Your task to perform on an android device: create a new album in the google photos Image 0: 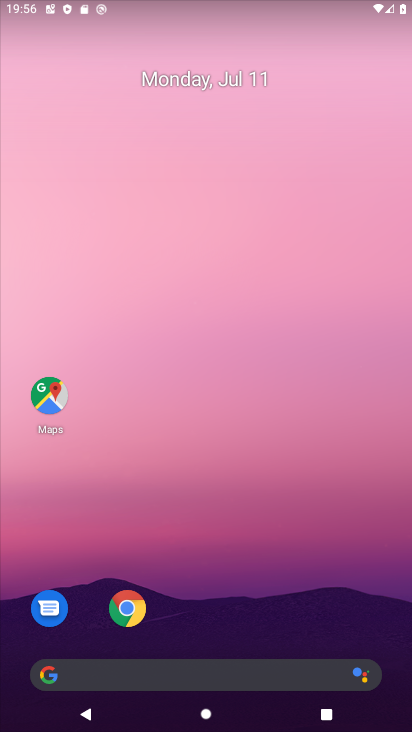
Step 0: drag from (214, 646) to (198, 239)
Your task to perform on an android device: create a new album in the google photos Image 1: 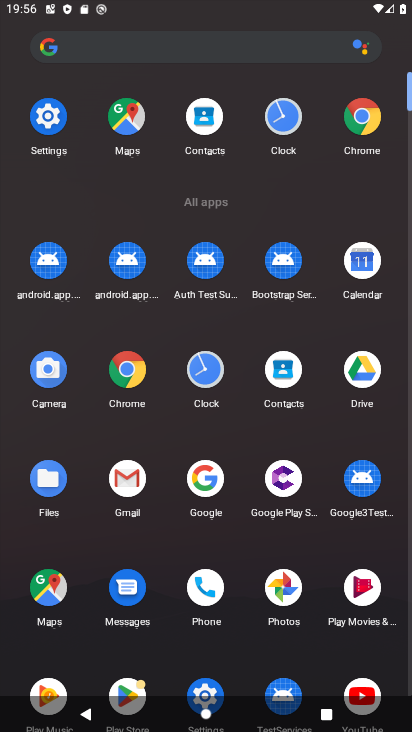
Step 1: click (286, 581)
Your task to perform on an android device: create a new album in the google photos Image 2: 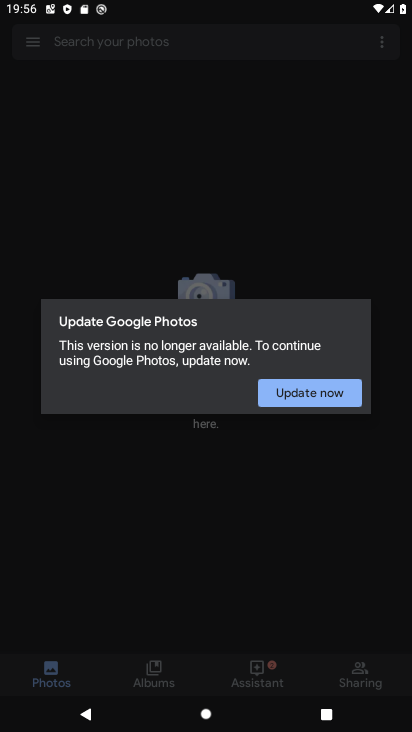
Step 2: click (322, 392)
Your task to perform on an android device: create a new album in the google photos Image 3: 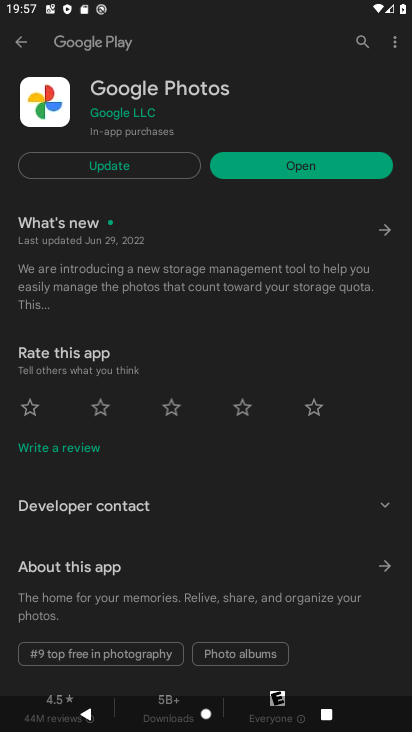
Step 3: click (116, 179)
Your task to perform on an android device: create a new album in the google photos Image 4: 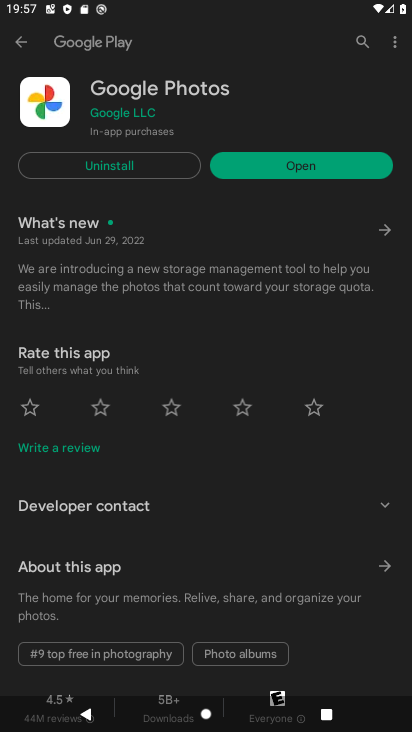
Step 4: click (273, 174)
Your task to perform on an android device: create a new album in the google photos Image 5: 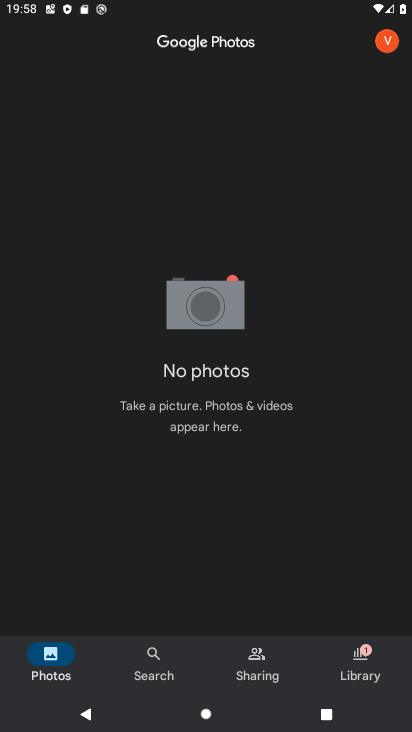
Step 5: click (347, 655)
Your task to perform on an android device: create a new album in the google photos Image 6: 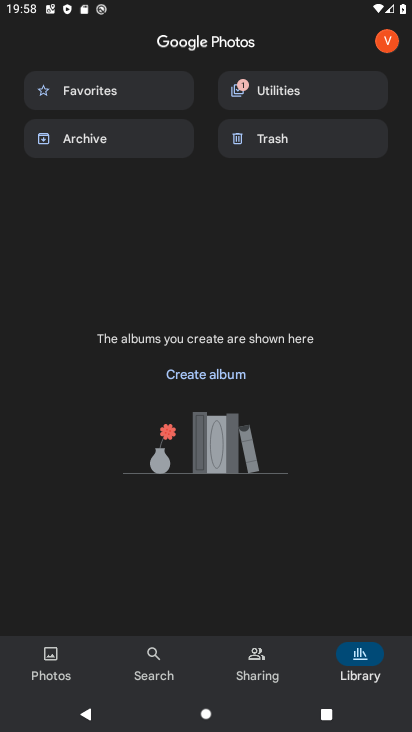
Step 6: task complete